Your task to perform on an android device: What's on the menu at Subway? Image 0: 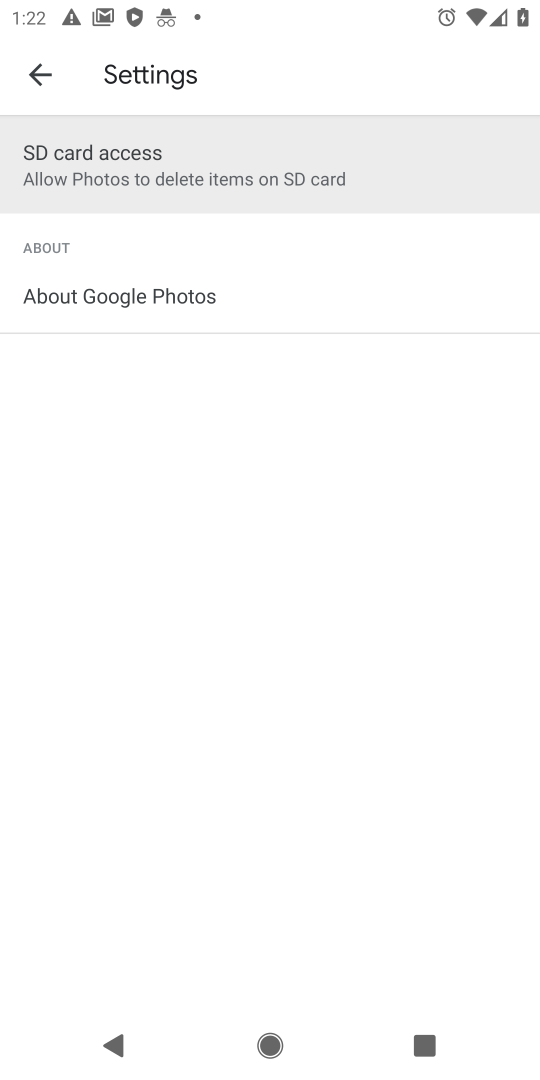
Step 0: press home button
Your task to perform on an android device: What's on the menu at Subway? Image 1: 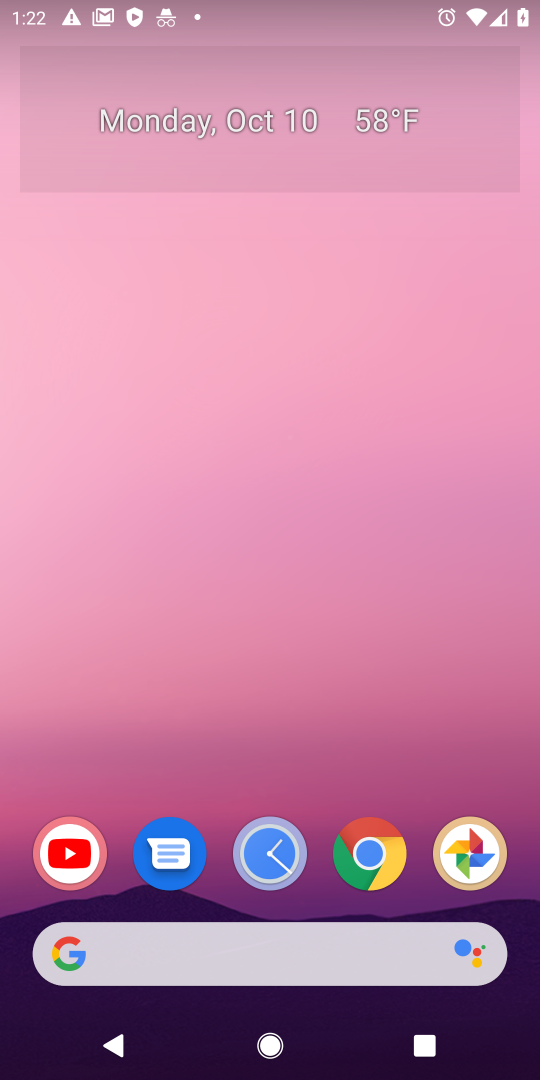
Step 1: click (390, 872)
Your task to perform on an android device: What's on the menu at Subway? Image 2: 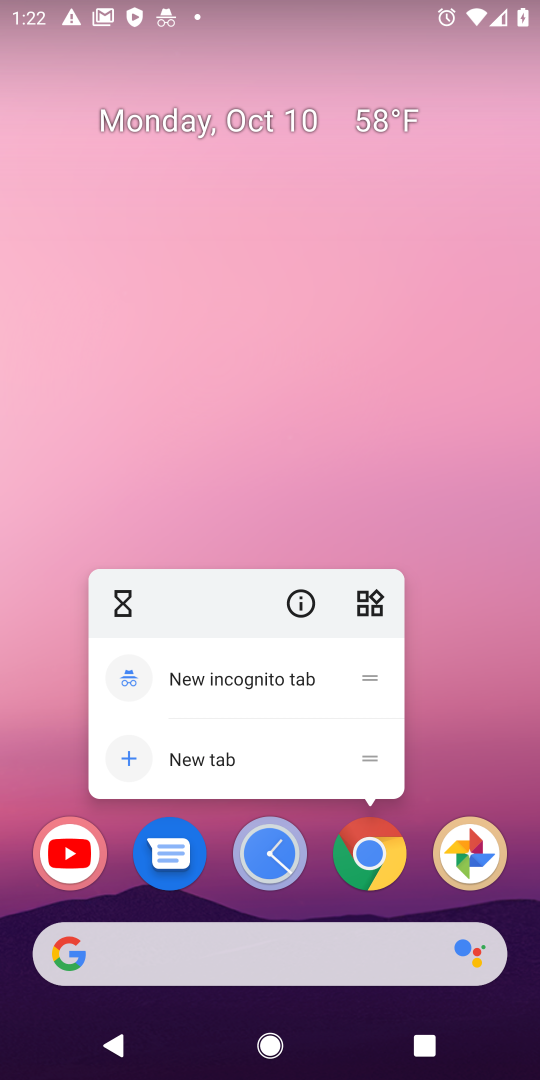
Step 2: click (390, 872)
Your task to perform on an android device: What's on the menu at Subway? Image 3: 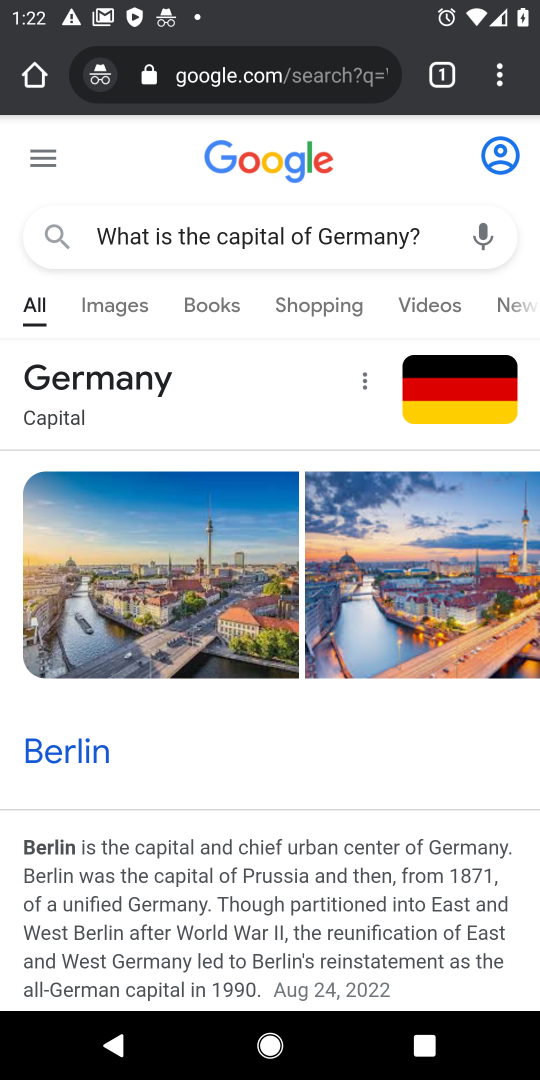
Step 3: click (362, 246)
Your task to perform on an android device: What's on the menu at Subway? Image 4: 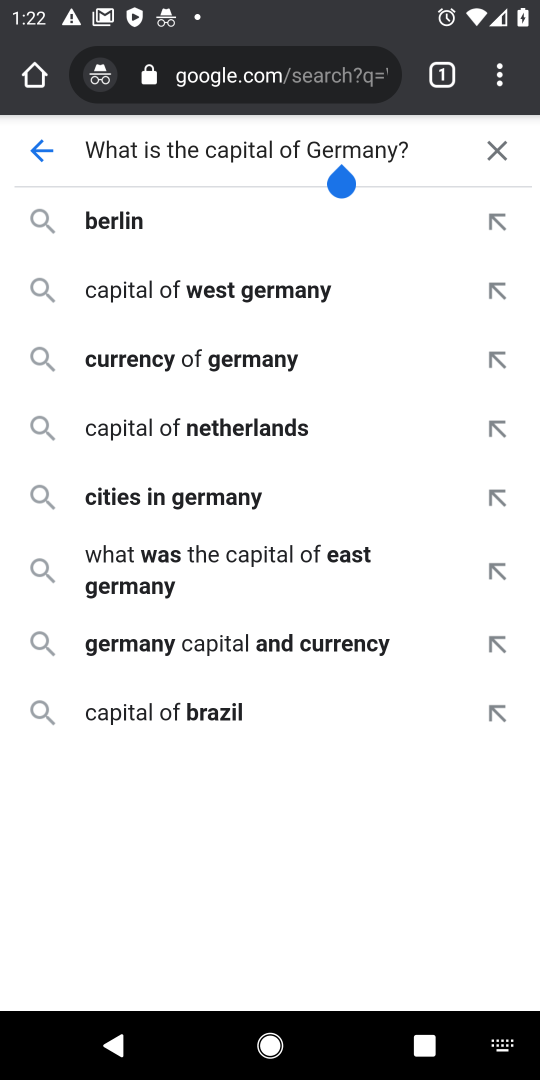
Step 4: click (506, 159)
Your task to perform on an android device: What's on the menu at Subway? Image 5: 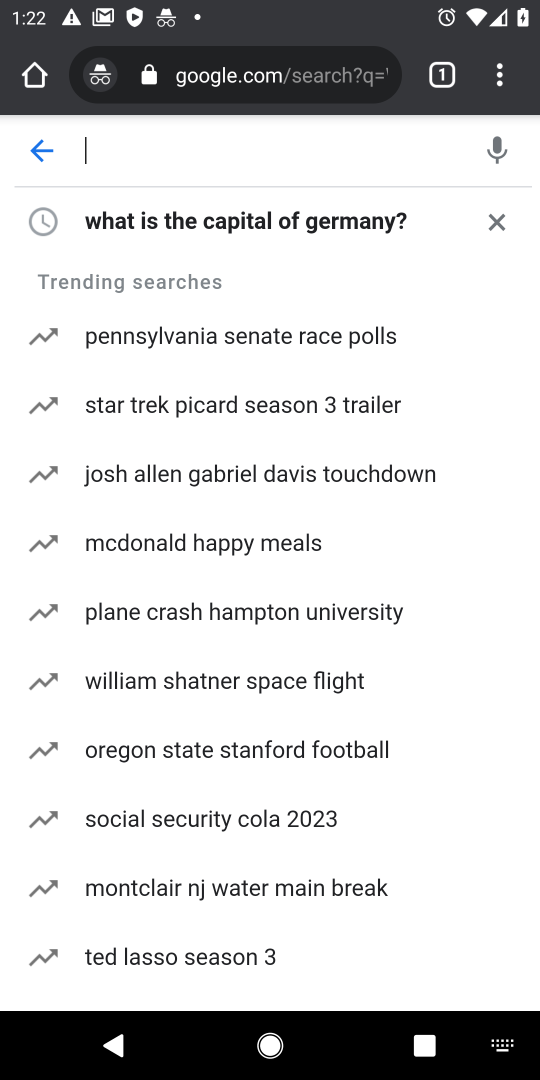
Step 5: type "What's on the menu at Subway?"
Your task to perform on an android device: What's on the menu at Subway? Image 6: 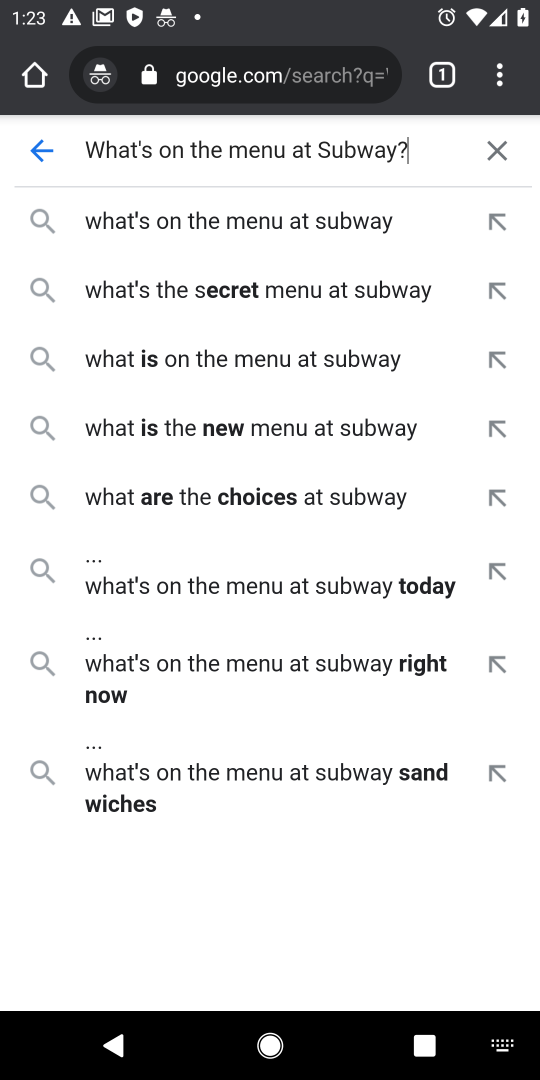
Step 6: click (325, 216)
Your task to perform on an android device: What's on the menu at Subway? Image 7: 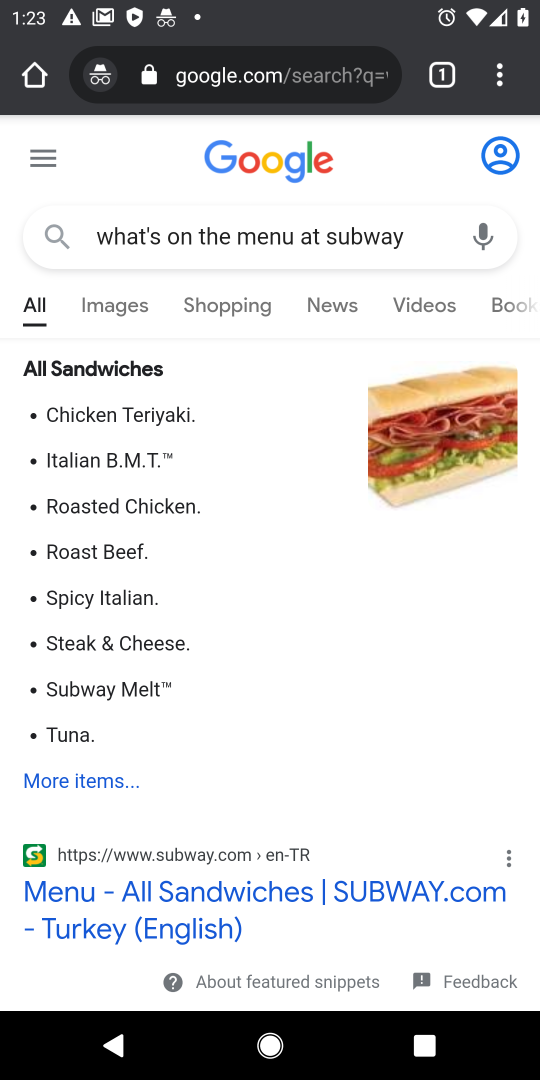
Step 7: task complete